Your task to perform on an android device: Go to privacy settings Image 0: 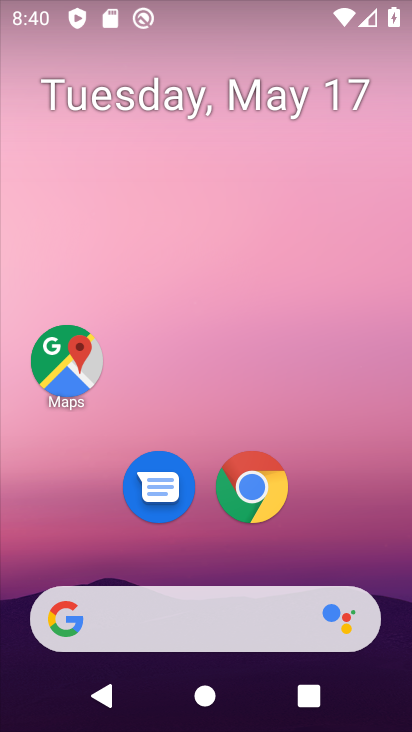
Step 0: drag from (197, 648) to (402, 150)
Your task to perform on an android device: Go to privacy settings Image 1: 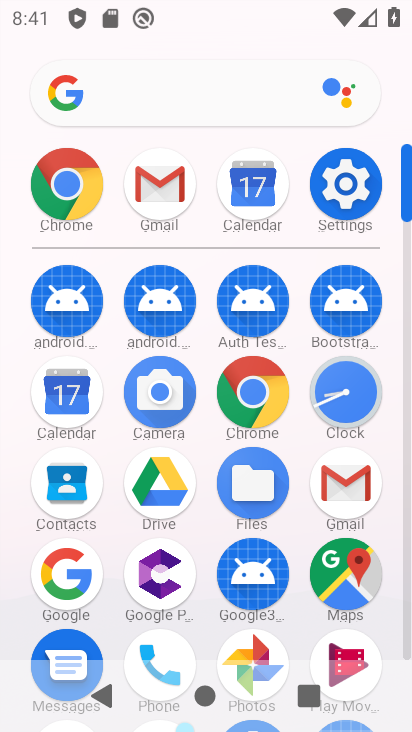
Step 1: click (337, 180)
Your task to perform on an android device: Go to privacy settings Image 2: 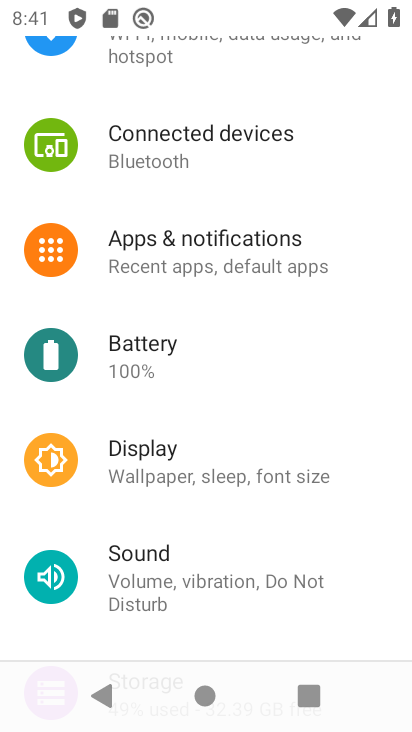
Step 2: drag from (121, 458) to (321, 167)
Your task to perform on an android device: Go to privacy settings Image 3: 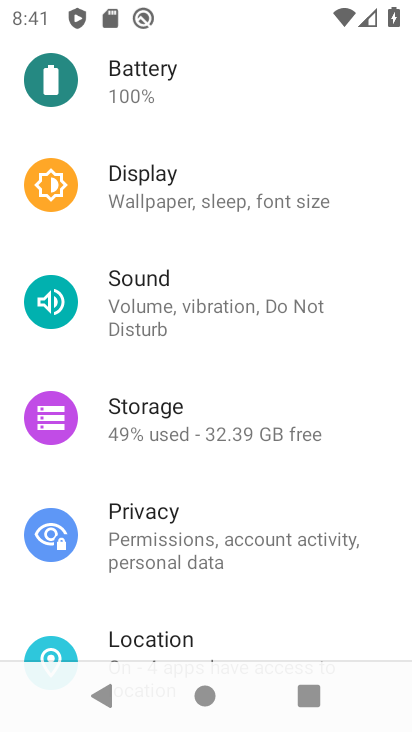
Step 3: click (148, 498)
Your task to perform on an android device: Go to privacy settings Image 4: 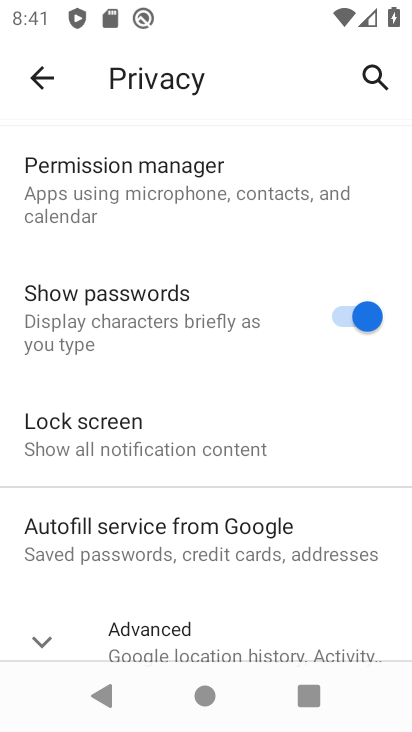
Step 4: task complete